Your task to perform on an android device: toggle wifi Image 0: 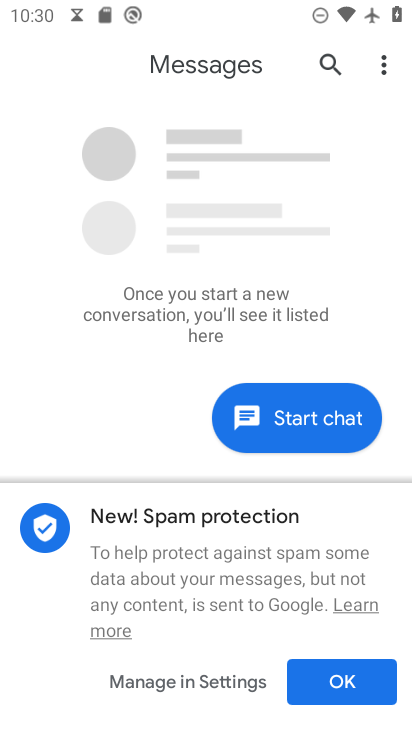
Step 0: press home button
Your task to perform on an android device: toggle wifi Image 1: 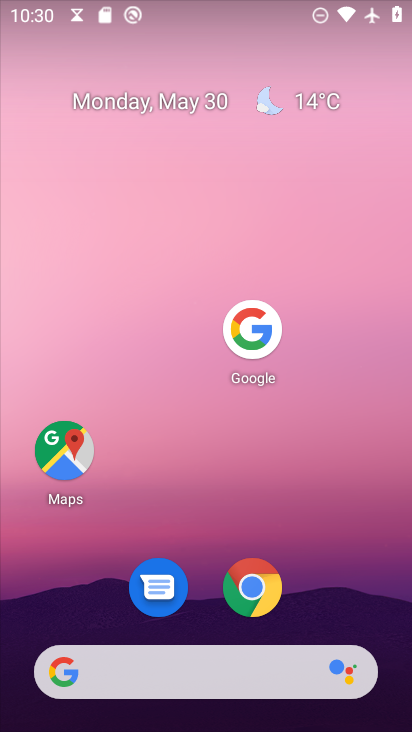
Step 1: drag from (176, 670) to (304, 75)
Your task to perform on an android device: toggle wifi Image 2: 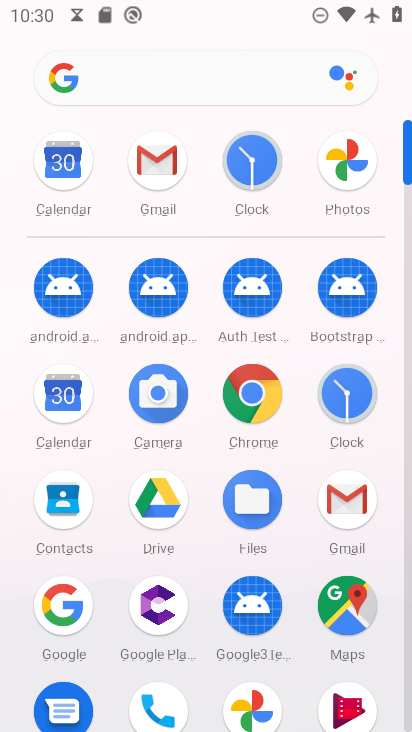
Step 2: drag from (189, 582) to (250, 214)
Your task to perform on an android device: toggle wifi Image 3: 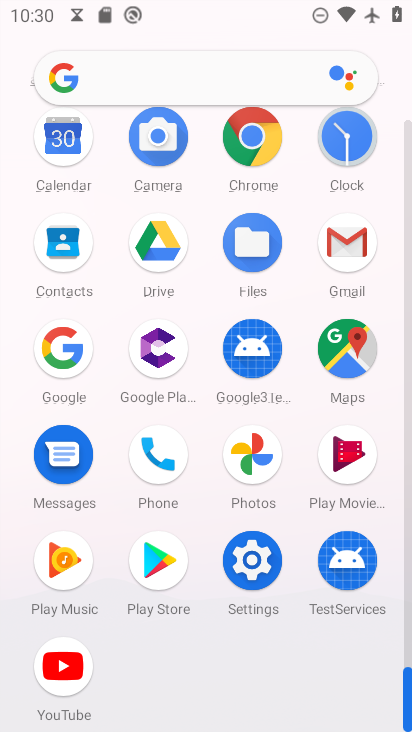
Step 3: click (257, 558)
Your task to perform on an android device: toggle wifi Image 4: 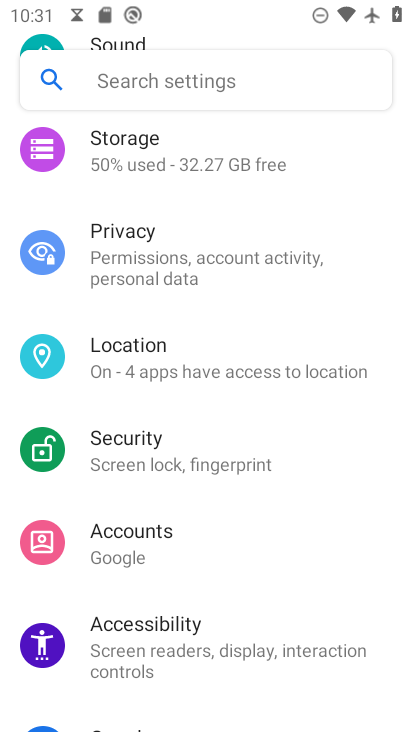
Step 4: drag from (299, 151) to (274, 672)
Your task to perform on an android device: toggle wifi Image 5: 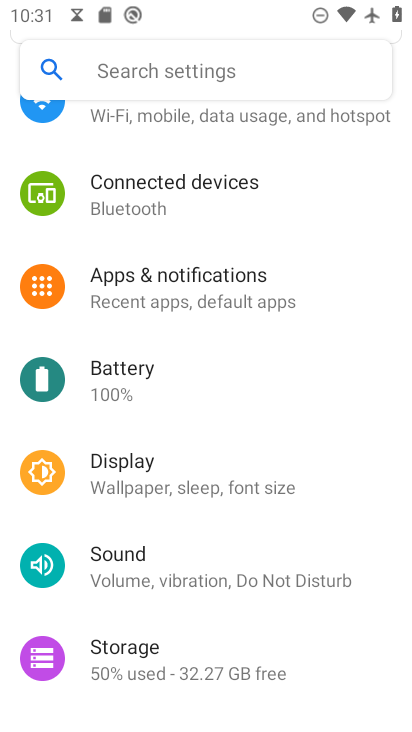
Step 5: drag from (310, 133) to (271, 689)
Your task to perform on an android device: toggle wifi Image 6: 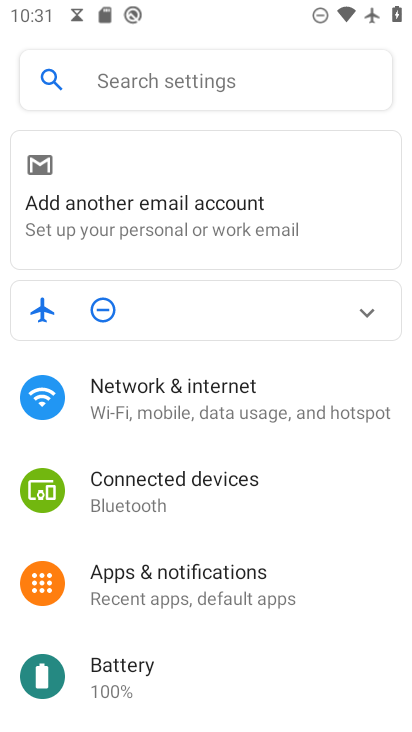
Step 6: click (206, 408)
Your task to perform on an android device: toggle wifi Image 7: 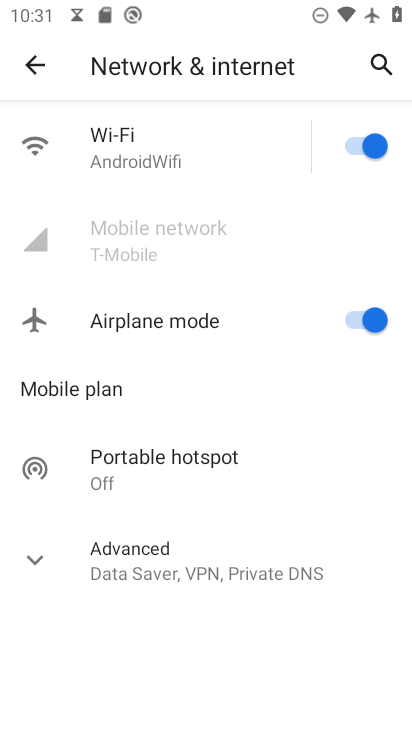
Step 7: click (354, 144)
Your task to perform on an android device: toggle wifi Image 8: 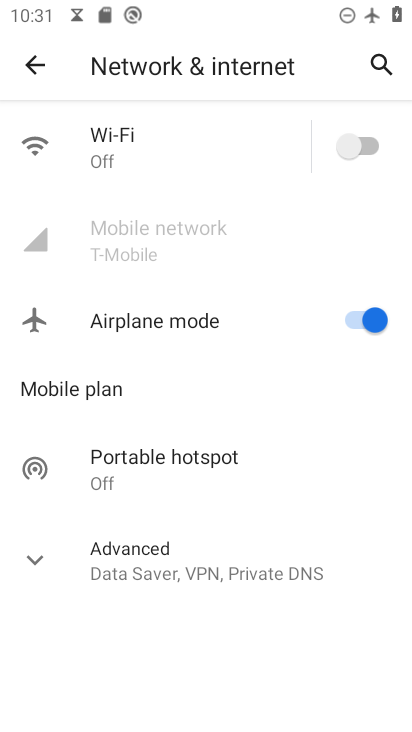
Step 8: task complete